Your task to perform on an android device: delete the emails in spam in the gmail app Image 0: 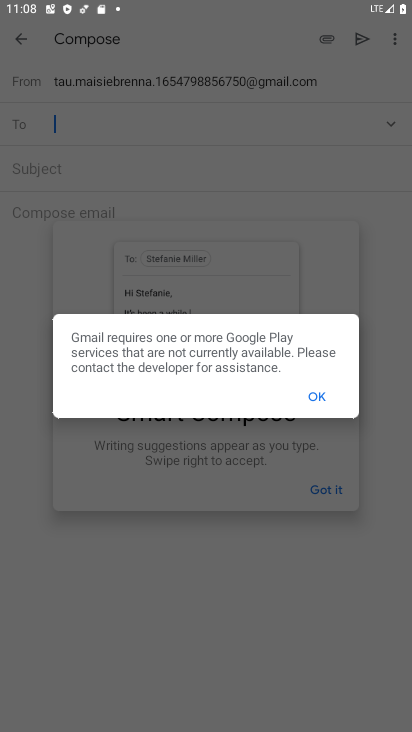
Step 0: press home button
Your task to perform on an android device: delete the emails in spam in the gmail app Image 1: 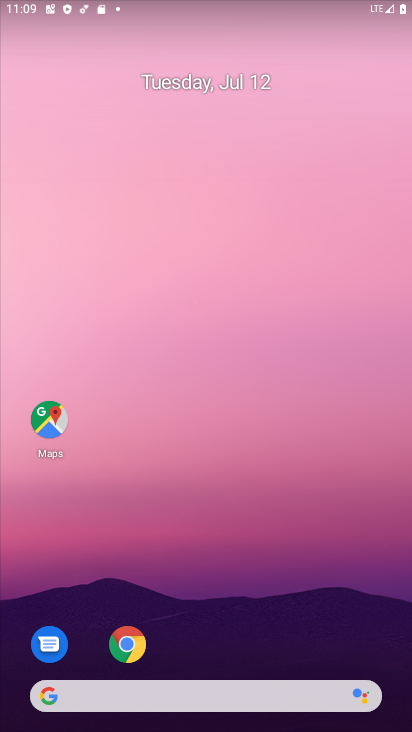
Step 1: drag from (170, 724) to (267, 10)
Your task to perform on an android device: delete the emails in spam in the gmail app Image 2: 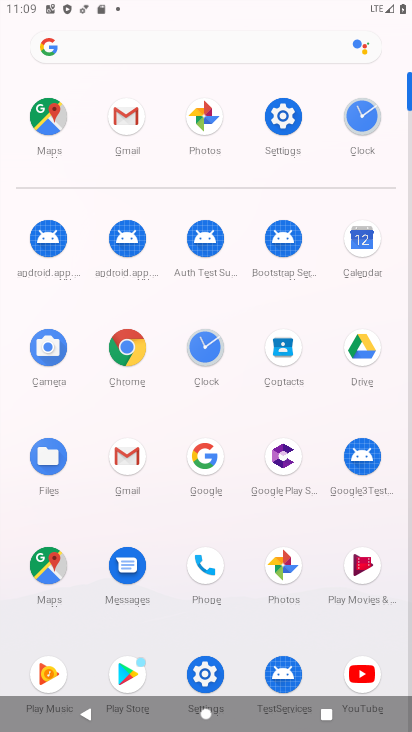
Step 2: click (126, 449)
Your task to perform on an android device: delete the emails in spam in the gmail app Image 3: 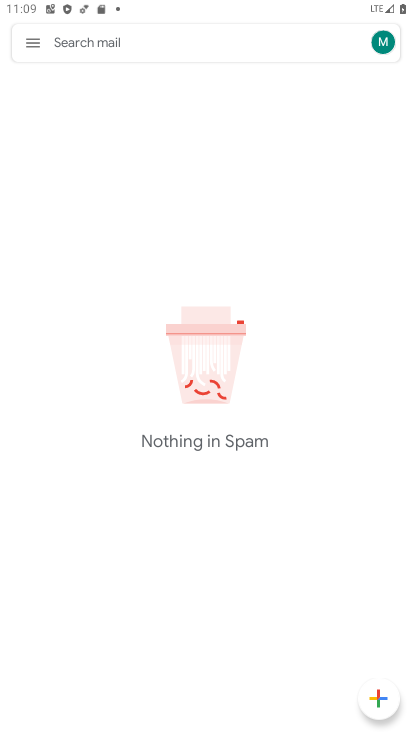
Step 3: task complete